Your task to perform on an android device: turn on bluetooth scan Image 0: 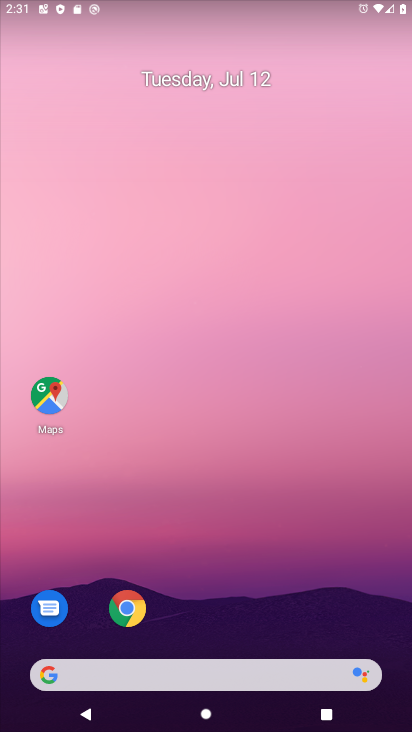
Step 0: drag from (291, 613) to (237, 57)
Your task to perform on an android device: turn on bluetooth scan Image 1: 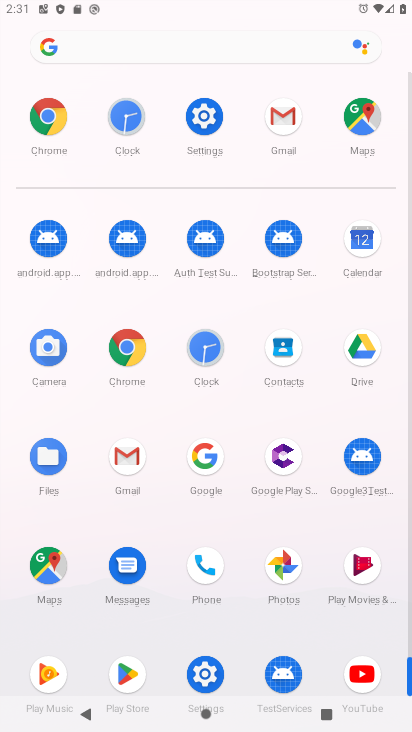
Step 1: click (213, 110)
Your task to perform on an android device: turn on bluetooth scan Image 2: 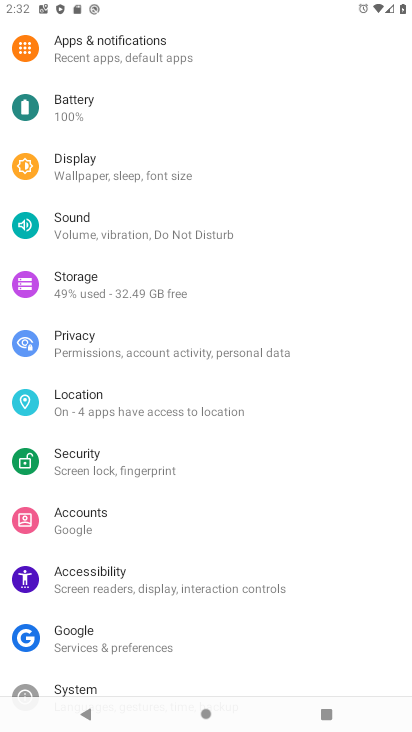
Step 2: click (111, 412)
Your task to perform on an android device: turn on bluetooth scan Image 3: 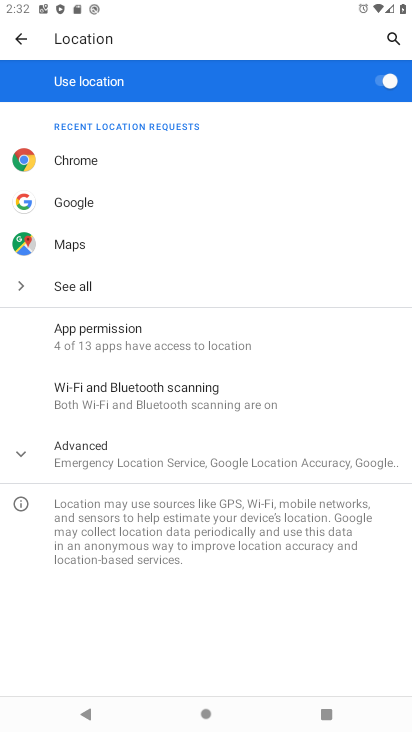
Step 3: click (179, 386)
Your task to perform on an android device: turn on bluetooth scan Image 4: 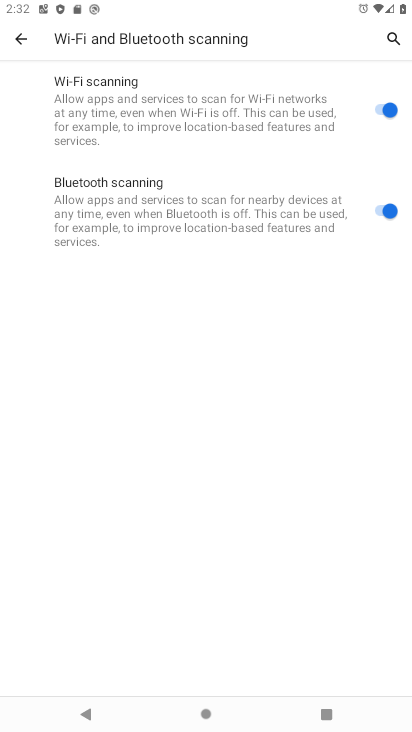
Step 4: task complete